Your task to perform on an android device: turn off data saver in the chrome app Image 0: 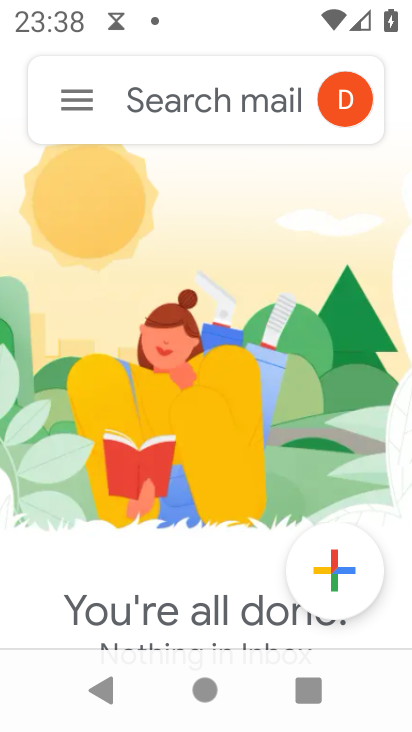
Step 0: press home button
Your task to perform on an android device: turn off data saver in the chrome app Image 1: 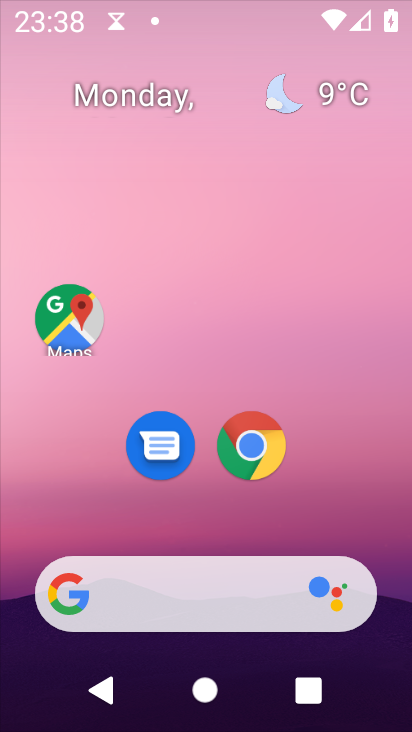
Step 1: drag from (261, 617) to (378, 2)
Your task to perform on an android device: turn off data saver in the chrome app Image 2: 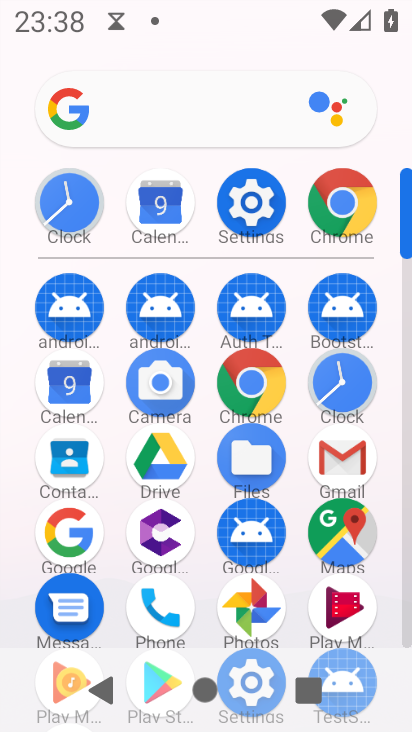
Step 2: click (255, 392)
Your task to perform on an android device: turn off data saver in the chrome app Image 3: 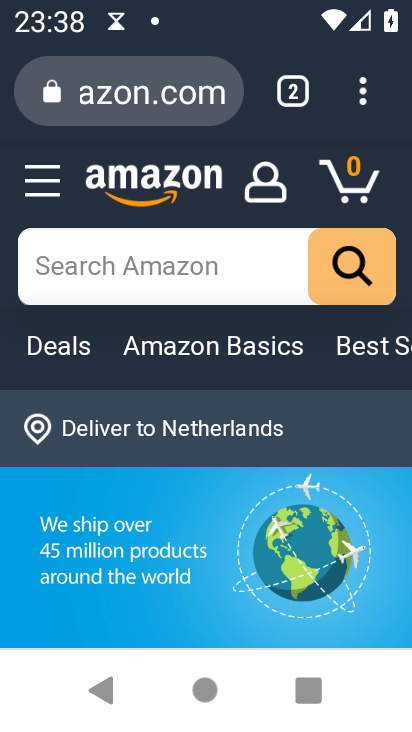
Step 3: drag from (365, 92) to (209, 483)
Your task to perform on an android device: turn off data saver in the chrome app Image 4: 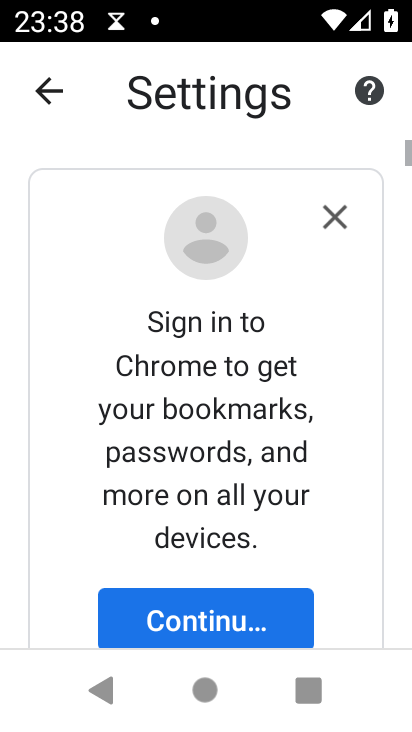
Step 4: drag from (195, 583) to (197, 114)
Your task to perform on an android device: turn off data saver in the chrome app Image 5: 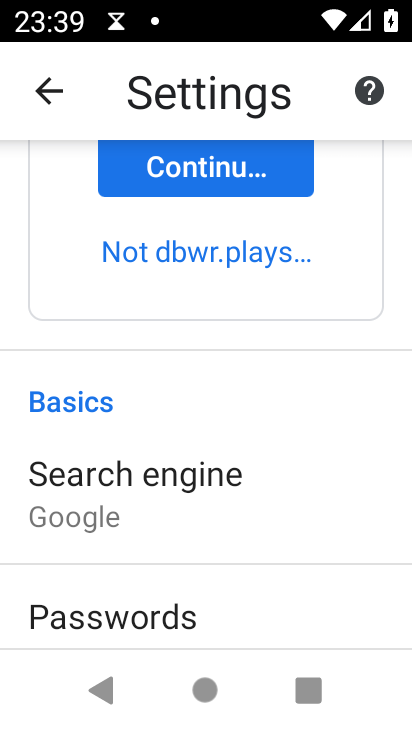
Step 5: drag from (284, 507) to (298, 222)
Your task to perform on an android device: turn off data saver in the chrome app Image 6: 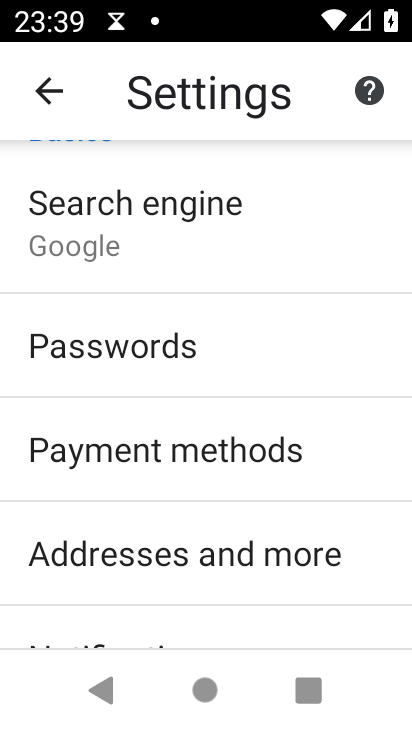
Step 6: drag from (237, 543) to (300, 182)
Your task to perform on an android device: turn off data saver in the chrome app Image 7: 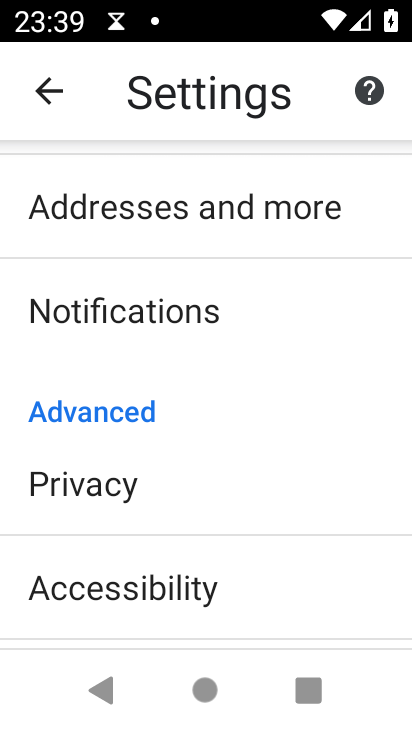
Step 7: drag from (237, 622) to (247, 282)
Your task to perform on an android device: turn off data saver in the chrome app Image 8: 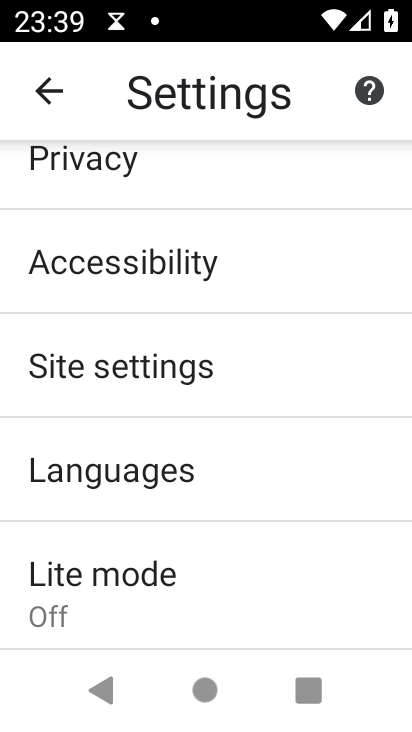
Step 8: click (190, 594)
Your task to perform on an android device: turn off data saver in the chrome app Image 9: 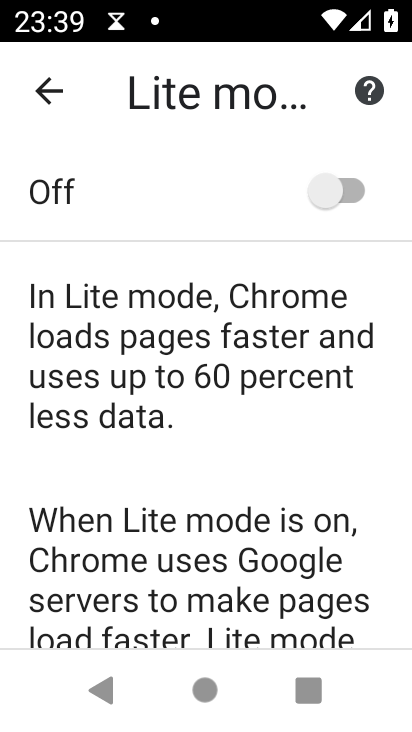
Step 9: task complete